Your task to perform on an android device: Open internet settings Image 0: 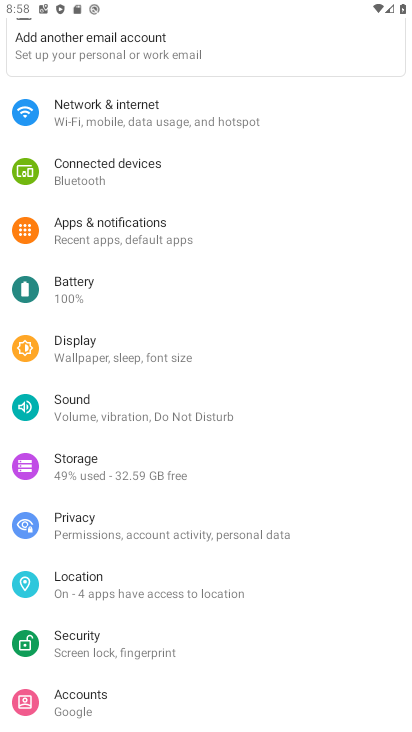
Step 0: click (106, 110)
Your task to perform on an android device: Open internet settings Image 1: 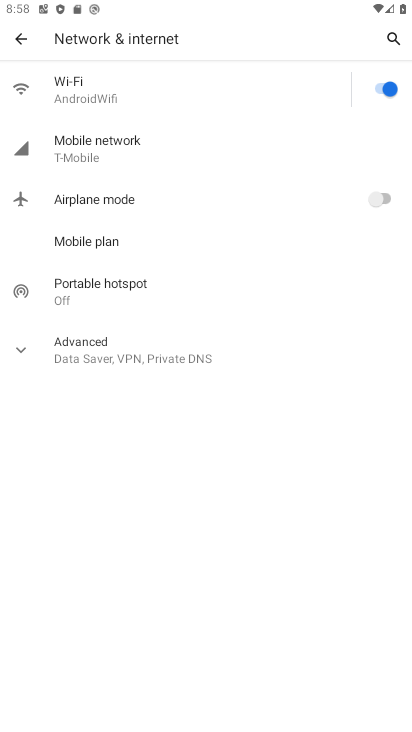
Step 1: task complete